Your task to perform on an android device: Clear all items from cart on bestbuy. Search for logitech g910 on bestbuy, select the first entry, and add it to the cart. Image 0: 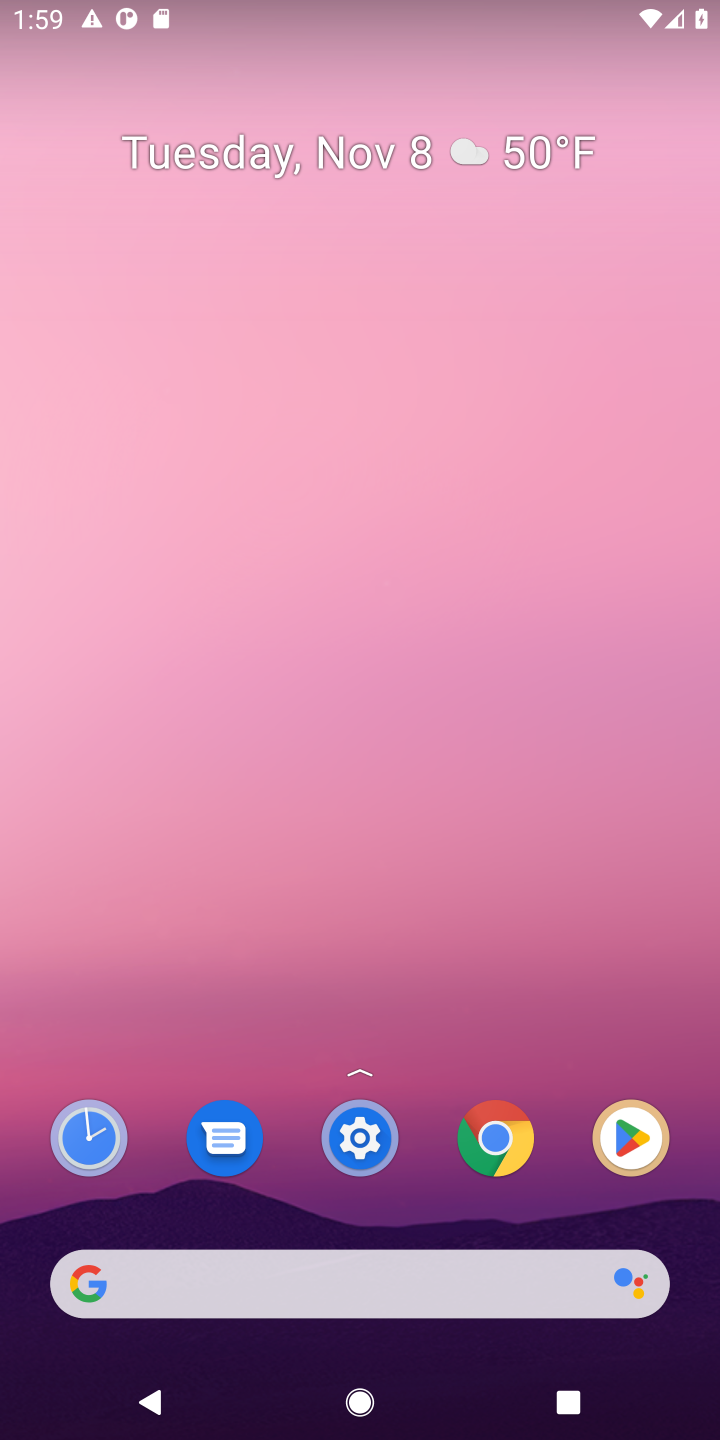
Step 0: click (473, 1279)
Your task to perform on an android device: Clear all items from cart on bestbuy. Search for logitech g910 on bestbuy, select the first entry, and add it to the cart. Image 1: 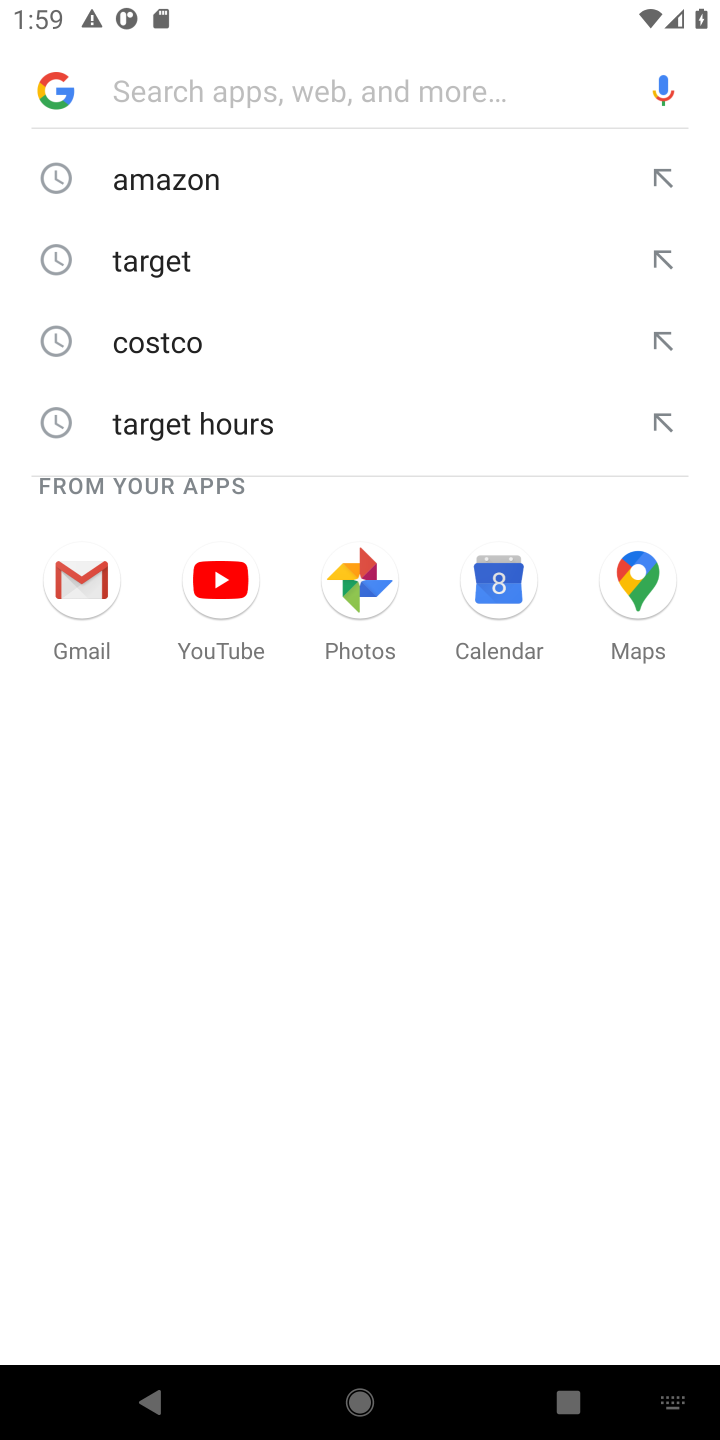
Step 1: type "bestbuy.com"
Your task to perform on an android device: Clear all items from cart on bestbuy. Search for logitech g910 on bestbuy, select the first entry, and add it to the cart. Image 2: 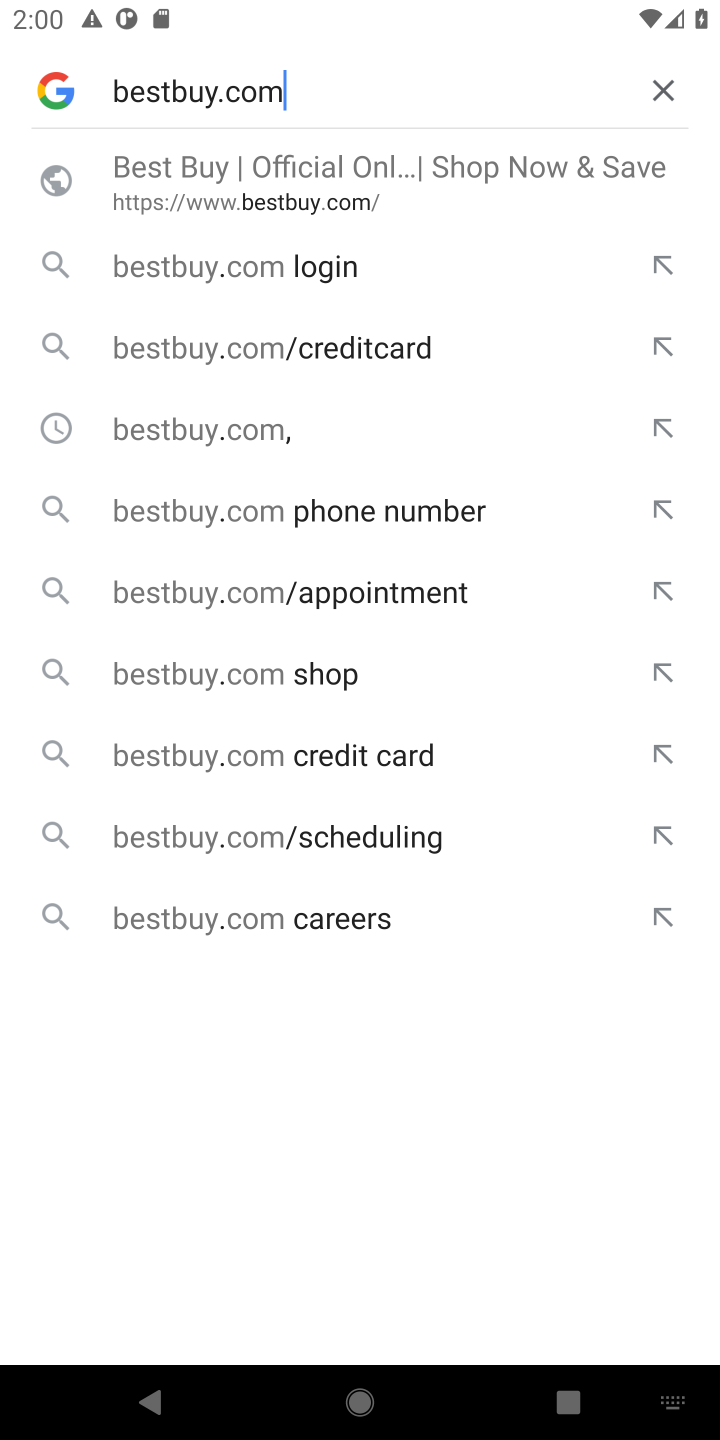
Step 2: click (305, 239)
Your task to perform on an android device: Clear all items from cart on bestbuy. Search for logitech g910 on bestbuy, select the first entry, and add it to the cart. Image 3: 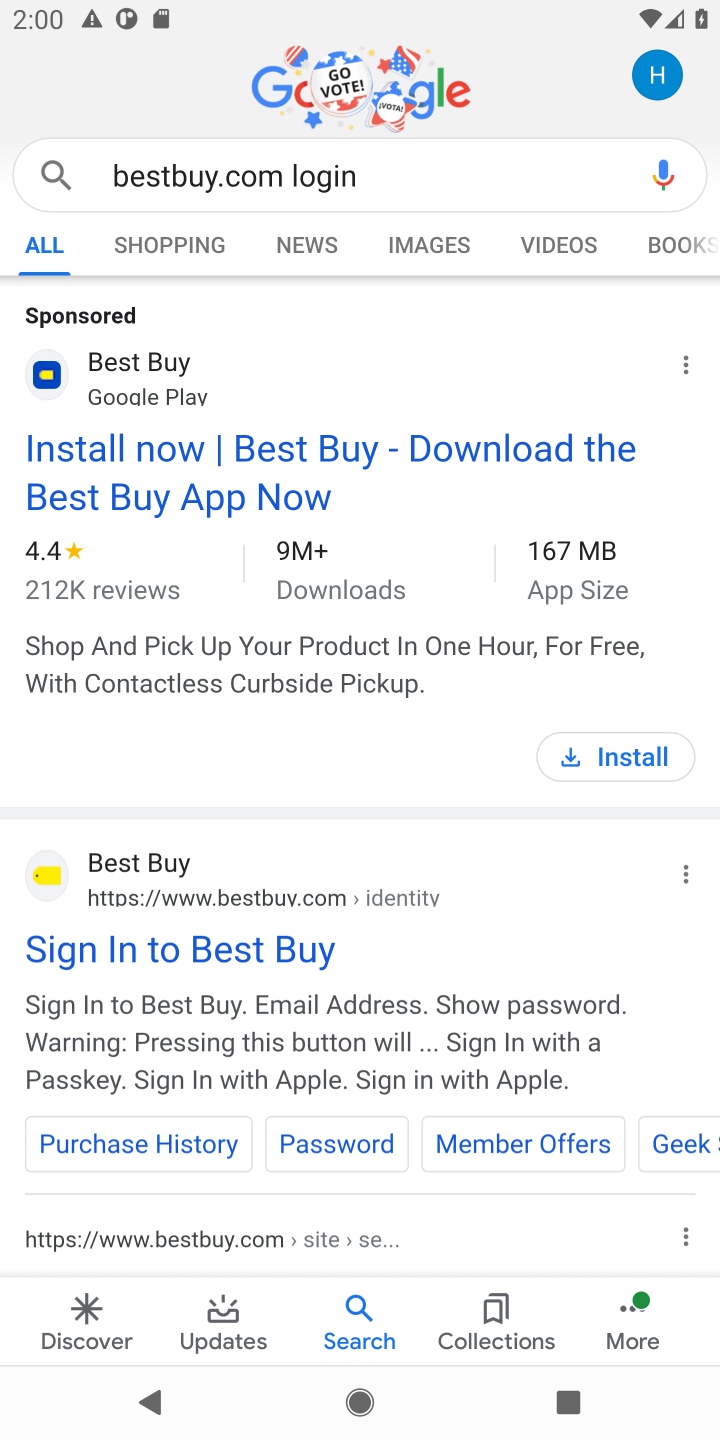
Step 3: click (232, 447)
Your task to perform on an android device: Clear all items from cart on bestbuy. Search for logitech g910 on bestbuy, select the first entry, and add it to the cart. Image 4: 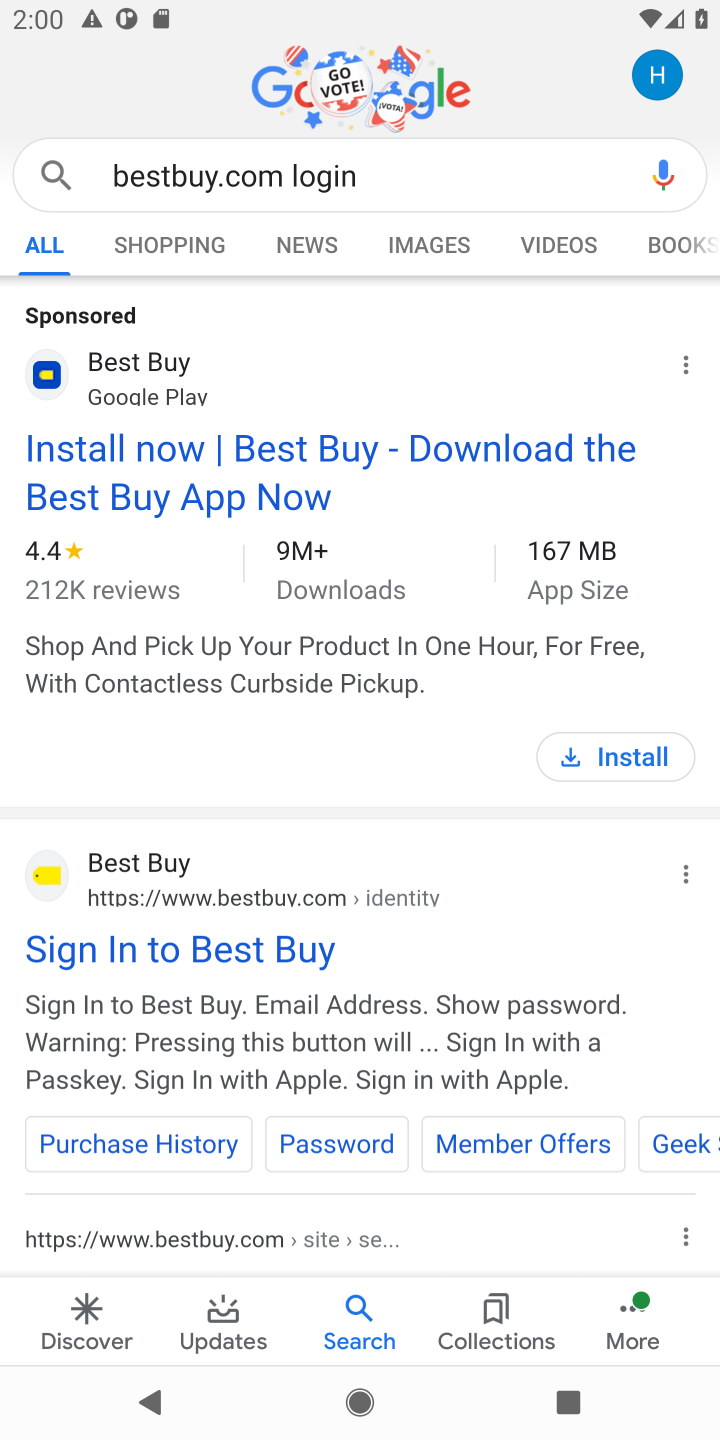
Step 4: click (232, 447)
Your task to perform on an android device: Clear all items from cart on bestbuy. Search for logitech g910 on bestbuy, select the first entry, and add it to the cart. Image 5: 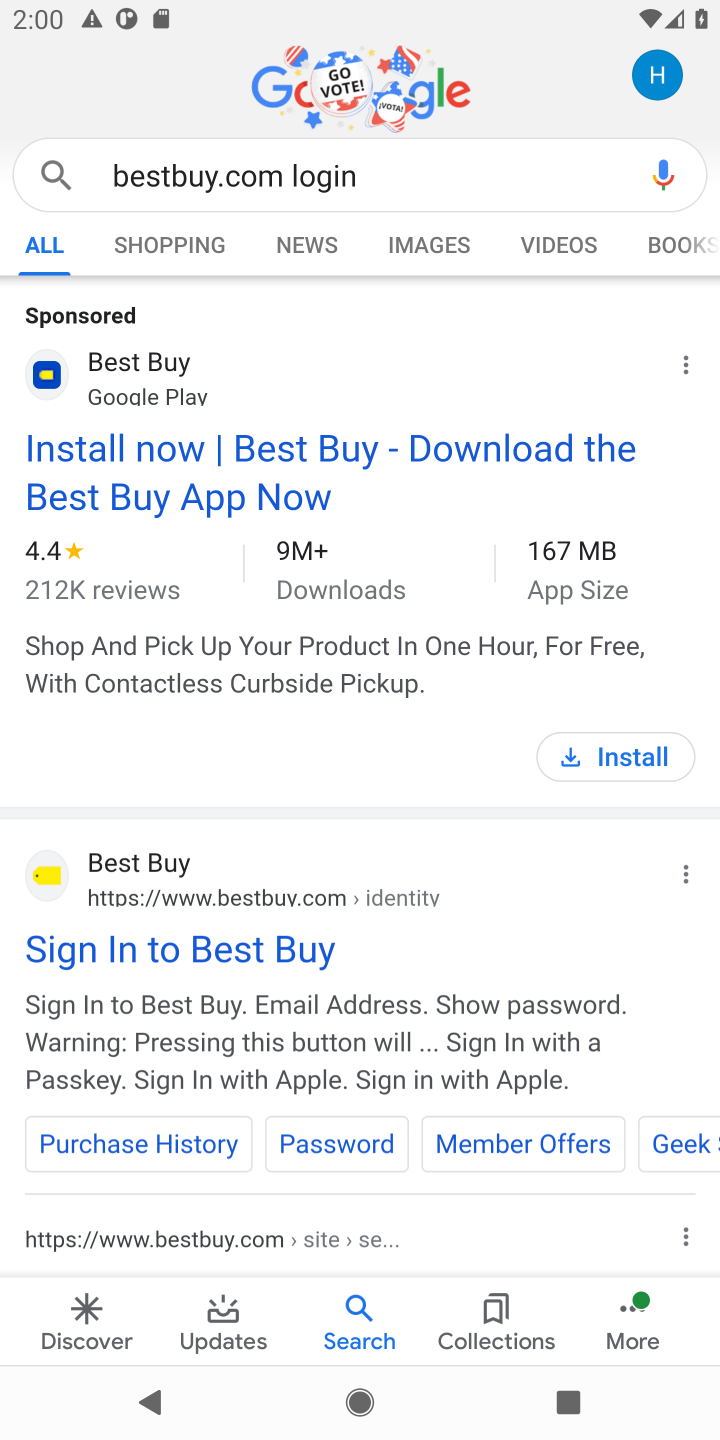
Step 5: task complete